Your task to perform on an android device: open app "LiveIn - Share Your Moment" (install if not already installed) and enter user name: "certifies@gmail.com" and password: "compartmented" Image 0: 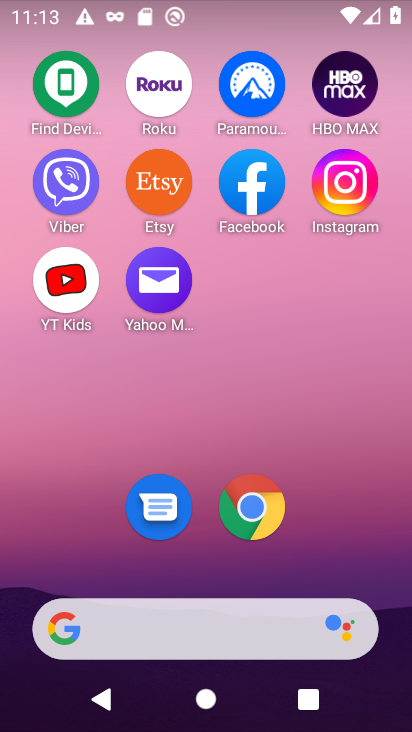
Step 0: press home button
Your task to perform on an android device: open app "LiveIn - Share Your Moment" (install if not already installed) and enter user name: "certifies@gmail.com" and password: "compartmented" Image 1: 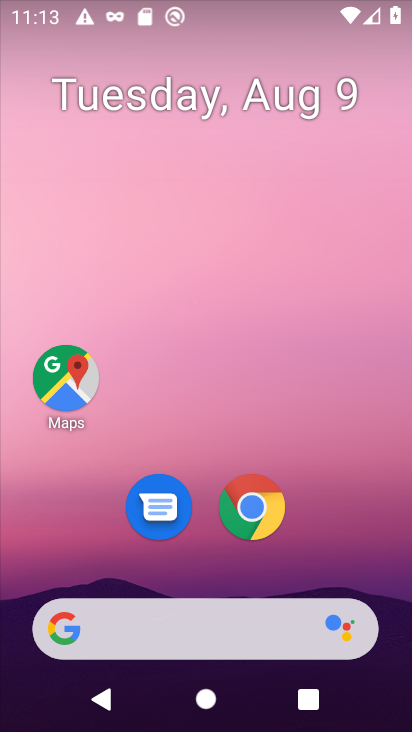
Step 1: drag from (173, 645) to (207, 144)
Your task to perform on an android device: open app "LiveIn - Share Your Moment" (install if not already installed) and enter user name: "certifies@gmail.com" and password: "compartmented" Image 2: 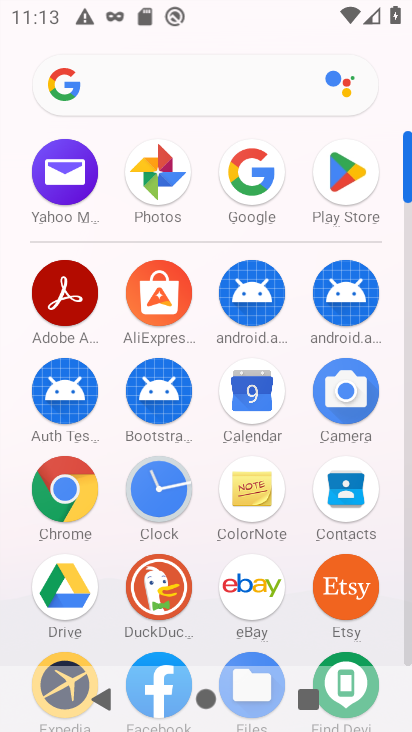
Step 2: click (347, 175)
Your task to perform on an android device: open app "LiveIn - Share Your Moment" (install if not already installed) and enter user name: "certifies@gmail.com" and password: "compartmented" Image 3: 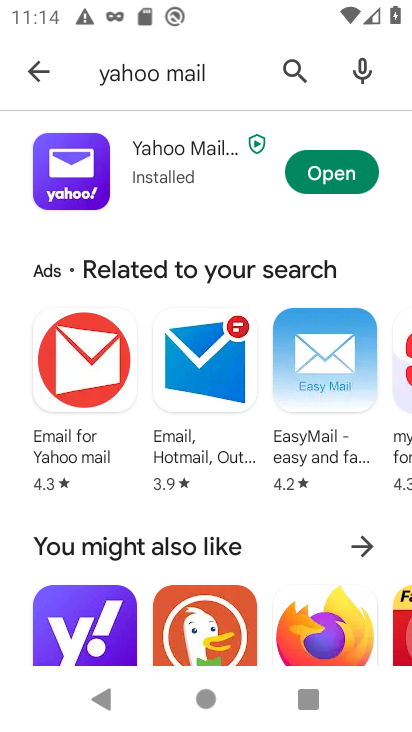
Step 3: click (292, 70)
Your task to perform on an android device: open app "LiveIn - Share Your Moment" (install if not already installed) and enter user name: "certifies@gmail.com" and password: "compartmented" Image 4: 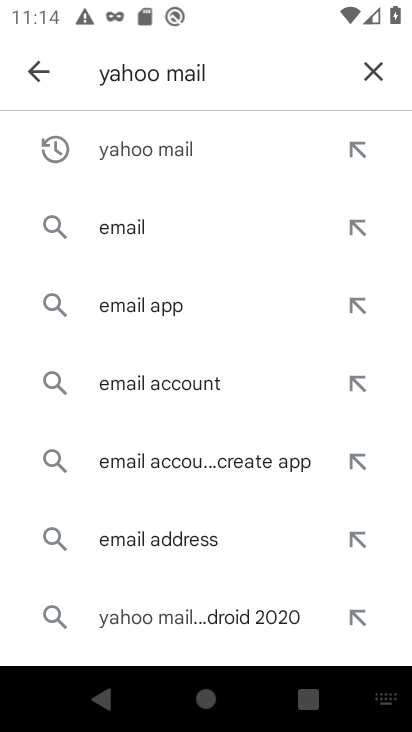
Step 4: click (368, 67)
Your task to perform on an android device: open app "LiveIn - Share Your Moment" (install if not already installed) and enter user name: "certifies@gmail.com" and password: "compartmented" Image 5: 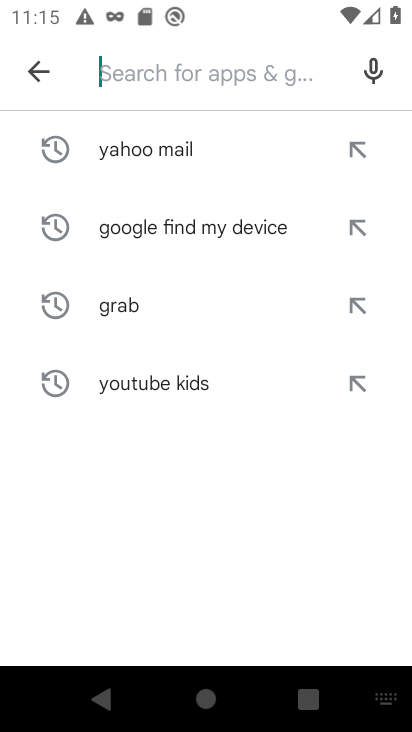
Step 5: type "LiveIn - Share Your Moment"
Your task to perform on an android device: open app "LiveIn - Share Your Moment" (install if not already installed) and enter user name: "certifies@gmail.com" and password: "compartmented" Image 6: 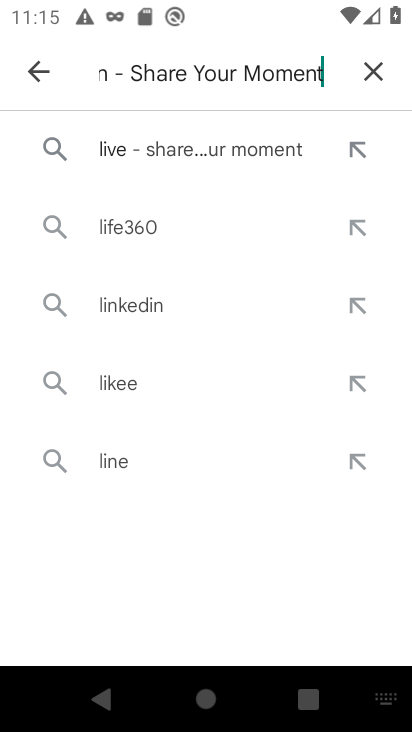
Step 6: type ""
Your task to perform on an android device: open app "LiveIn - Share Your Moment" (install if not already installed) and enter user name: "certifies@gmail.com" and password: "compartmented" Image 7: 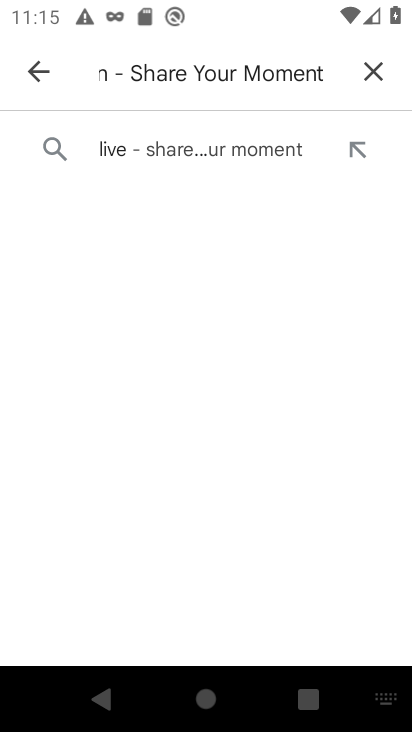
Step 7: click (181, 153)
Your task to perform on an android device: open app "LiveIn - Share Your Moment" (install if not already installed) and enter user name: "certifies@gmail.com" and password: "compartmented" Image 8: 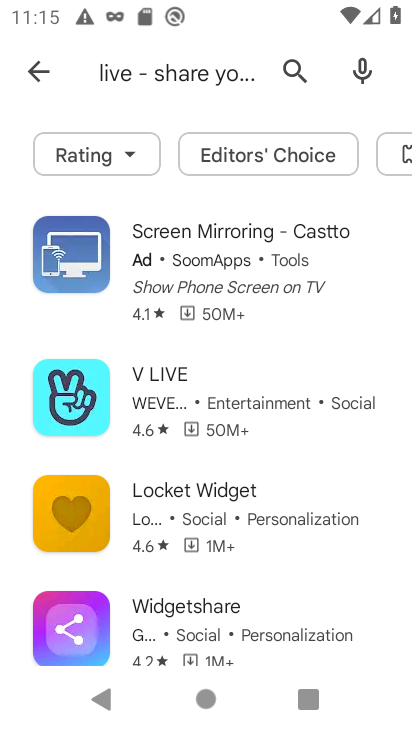
Step 8: task complete